Your task to perform on an android device: check the backup settings in the google photos Image 0: 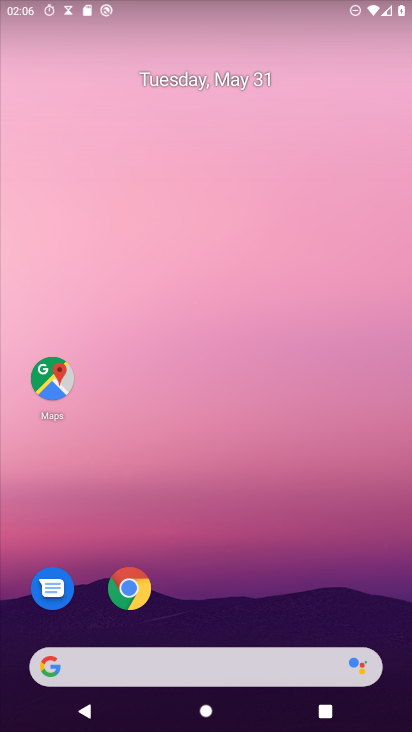
Step 0: drag from (368, 636) to (385, 316)
Your task to perform on an android device: check the backup settings in the google photos Image 1: 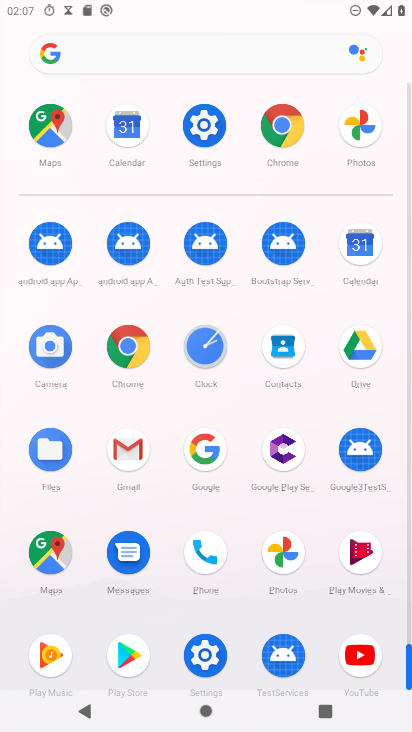
Step 1: click (291, 544)
Your task to perform on an android device: check the backup settings in the google photos Image 2: 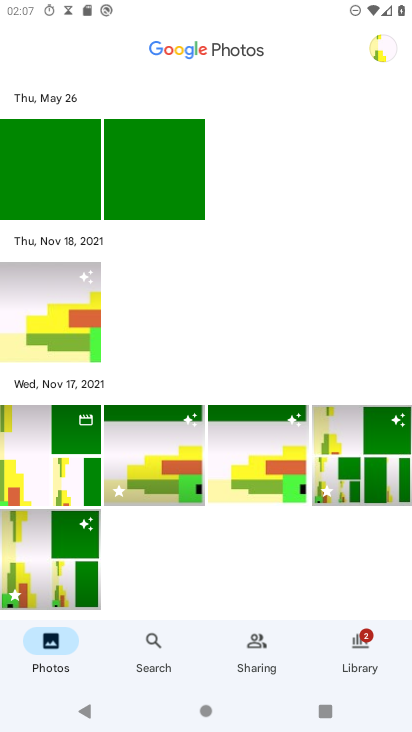
Step 2: click (385, 46)
Your task to perform on an android device: check the backup settings in the google photos Image 3: 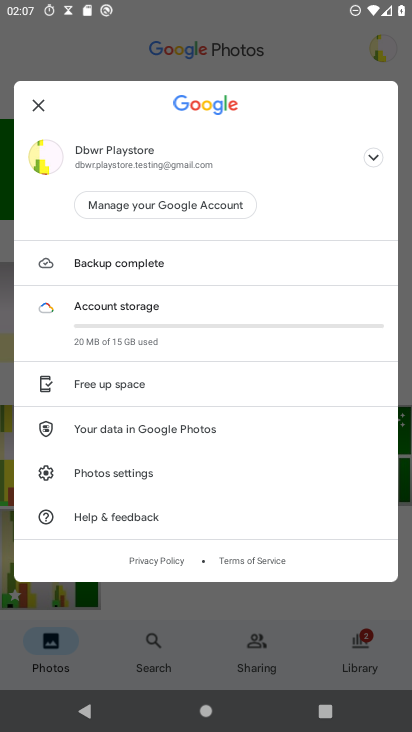
Step 3: click (190, 467)
Your task to perform on an android device: check the backup settings in the google photos Image 4: 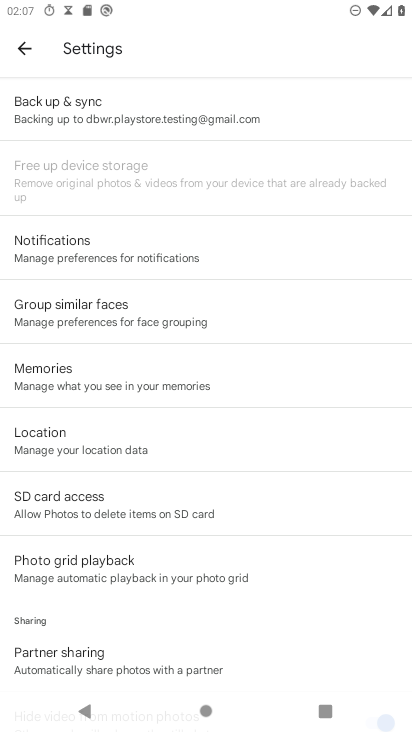
Step 4: click (172, 109)
Your task to perform on an android device: check the backup settings in the google photos Image 5: 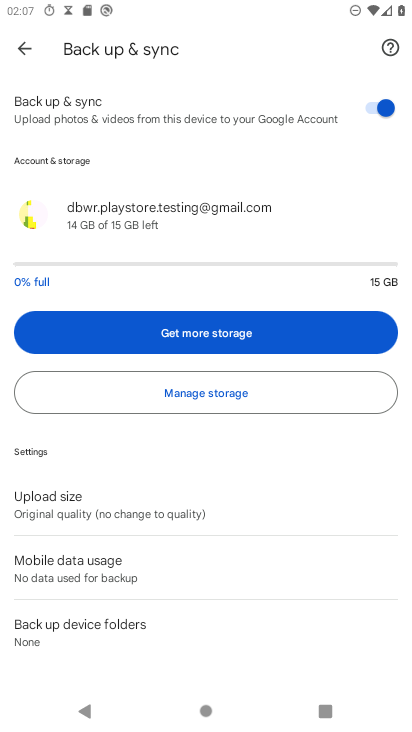
Step 5: task complete